Your task to perform on an android device: change the clock display to analog Image 0: 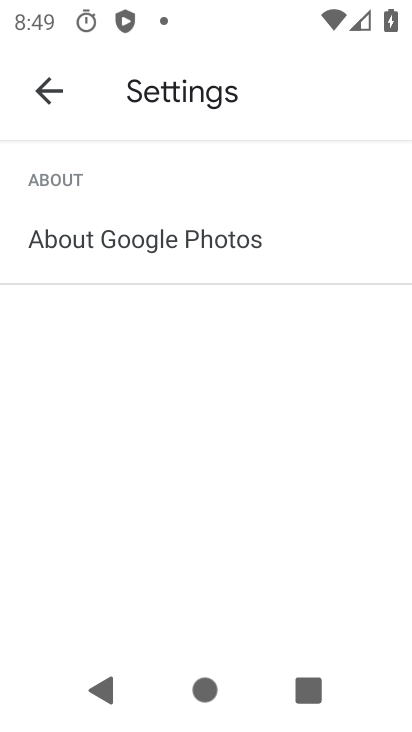
Step 0: press home button
Your task to perform on an android device: change the clock display to analog Image 1: 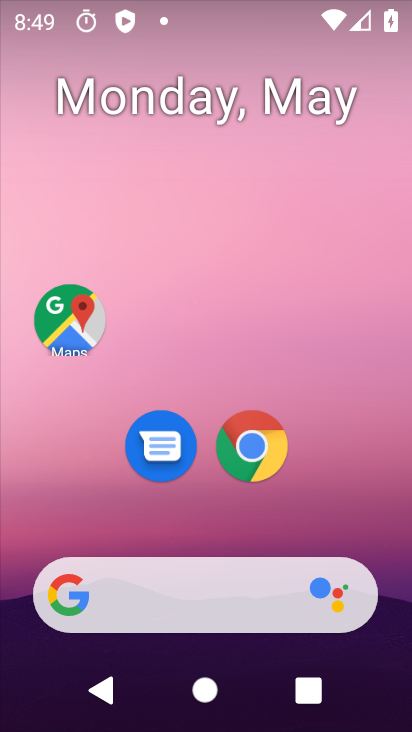
Step 1: drag from (332, 548) to (250, 4)
Your task to perform on an android device: change the clock display to analog Image 2: 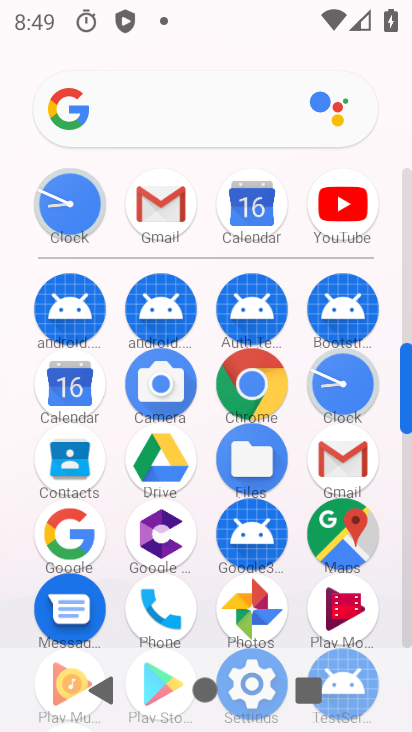
Step 2: click (66, 208)
Your task to perform on an android device: change the clock display to analog Image 3: 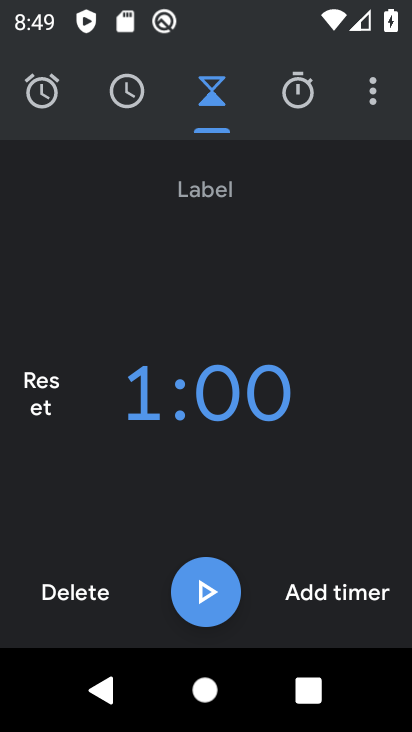
Step 3: click (373, 94)
Your task to perform on an android device: change the clock display to analog Image 4: 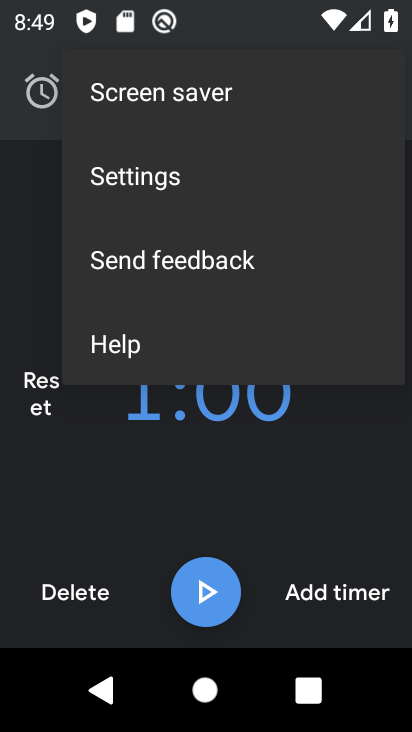
Step 4: click (110, 177)
Your task to perform on an android device: change the clock display to analog Image 5: 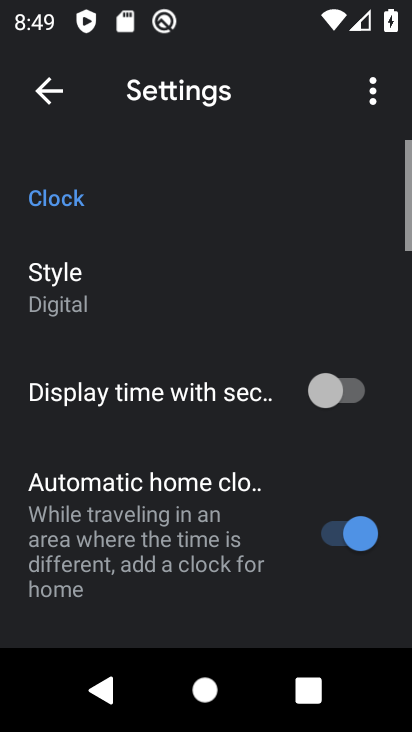
Step 5: click (65, 287)
Your task to perform on an android device: change the clock display to analog Image 6: 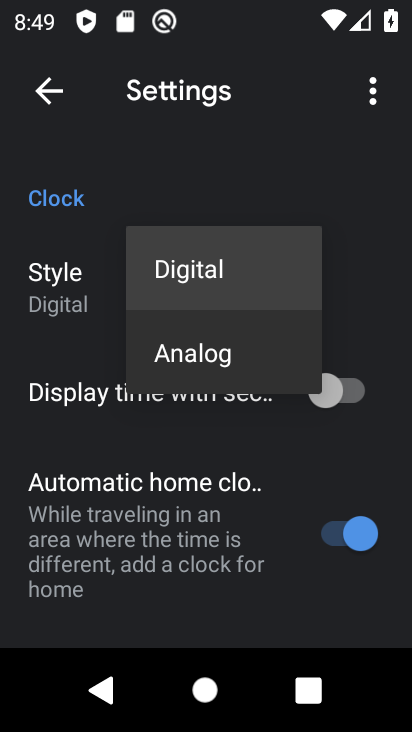
Step 6: click (182, 357)
Your task to perform on an android device: change the clock display to analog Image 7: 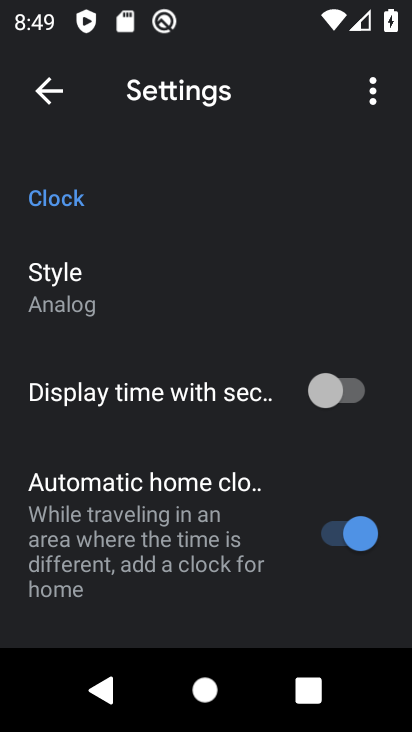
Step 7: task complete